Your task to perform on an android device: Open Amazon Image 0: 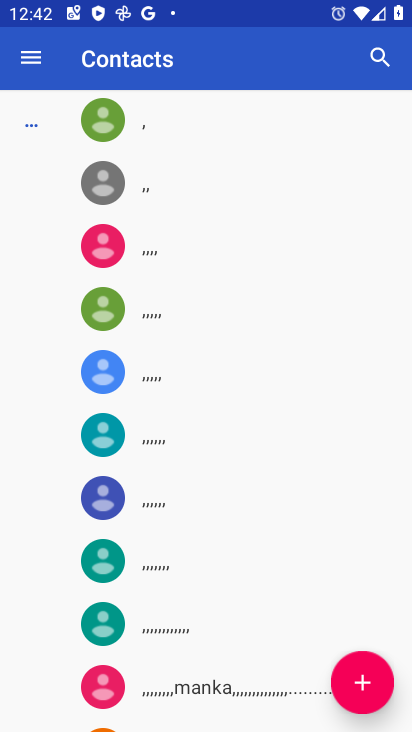
Step 0: press home button
Your task to perform on an android device: Open Amazon Image 1: 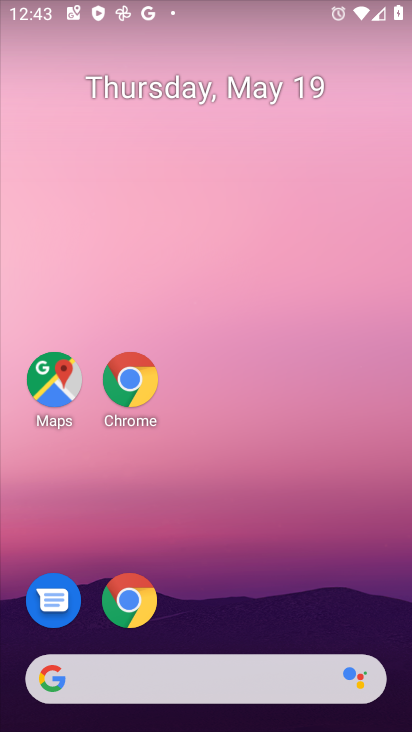
Step 1: drag from (326, 633) to (192, 181)
Your task to perform on an android device: Open Amazon Image 2: 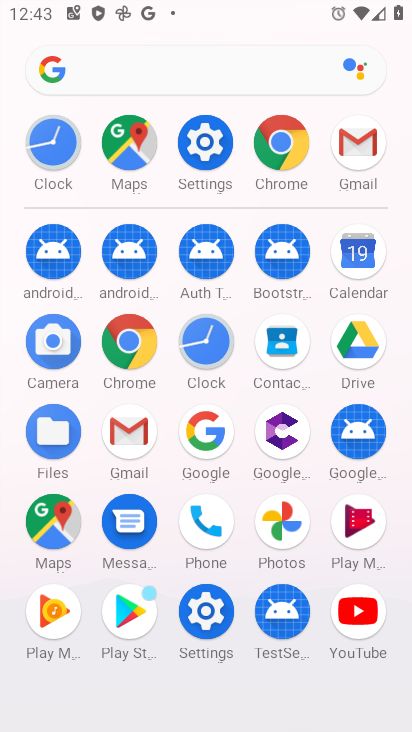
Step 2: click (140, 348)
Your task to perform on an android device: Open Amazon Image 3: 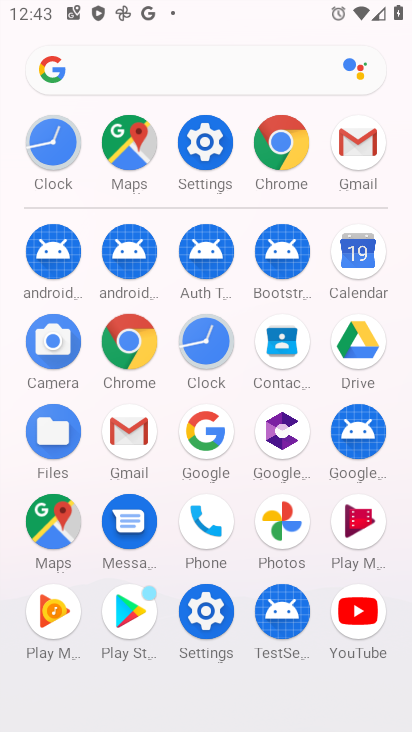
Step 3: click (140, 348)
Your task to perform on an android device: Open Amazon Image 4: 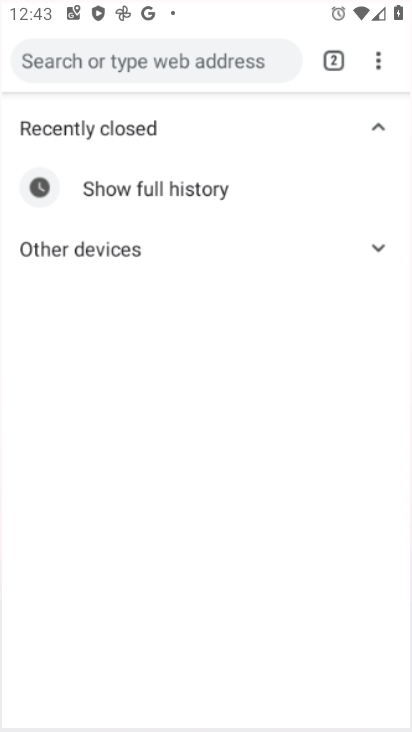
Step 4: click (140, 348)
Your task to perform on an android device: Open Amazon Image 5: 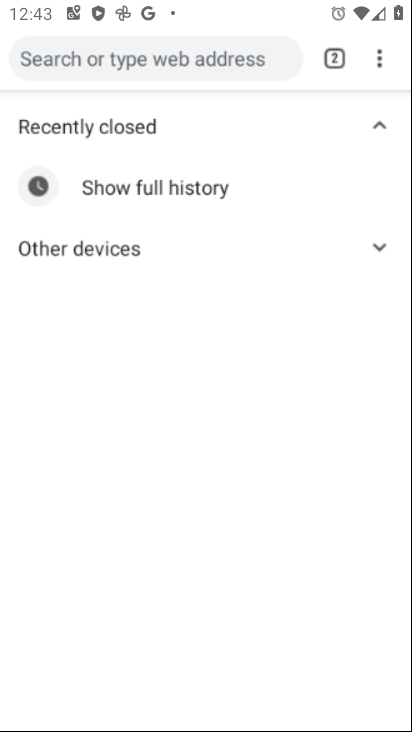
Step 5: click (140, 348)
Your task to perform on an android device: Open Amazon Image 6: 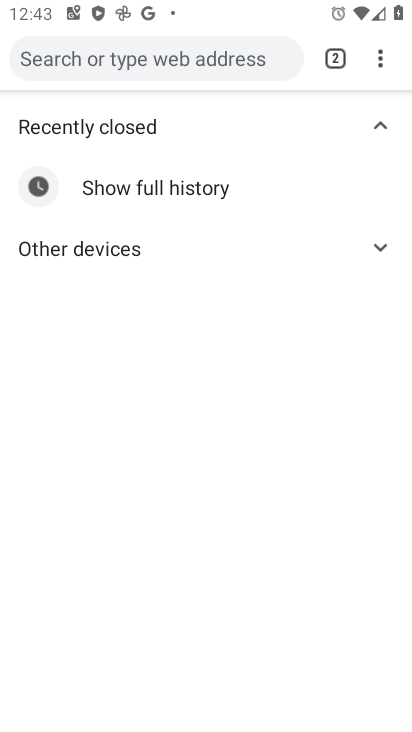
Step 6: press back button
Your task to perform on an android device: Open Amazon Image 7: 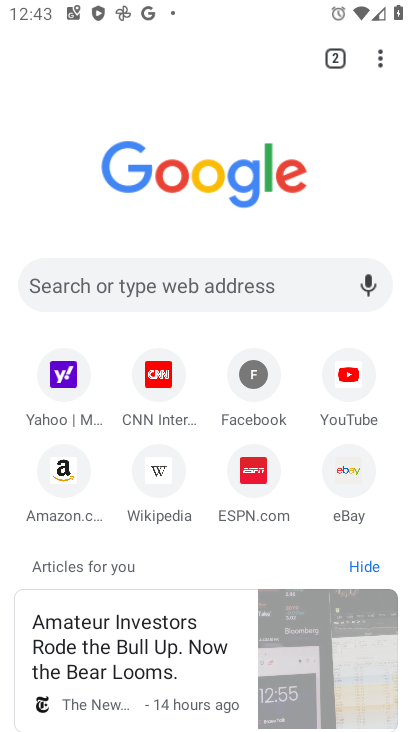
Step 7: drag from (376, 51) to (399, 364)
Your task to perform on an android device: Open Amazon Image 8: 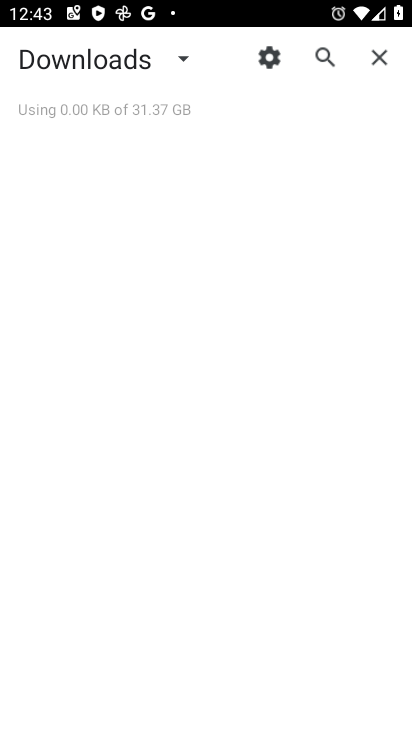
Step 8: click (59, 228)
Your task to perform on an android device: Open Amazon Image 9: 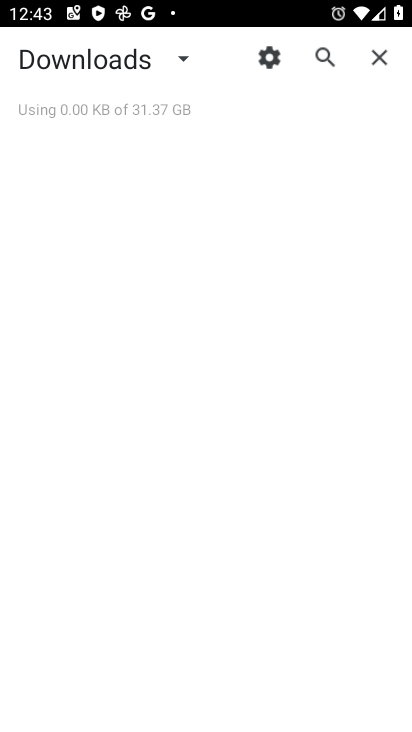
Step 9: click (383, 56)
Your task to perform on an android device: Open Amazon Image 10: 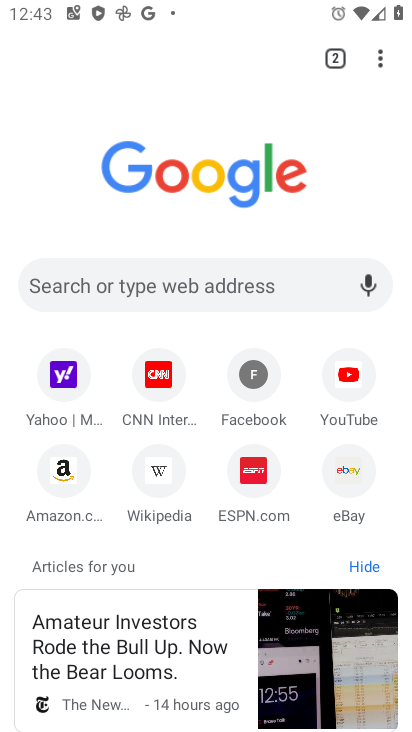
Step 10: click (61, 483)
Your task to perform on an android device: Open Amazon Image 11: 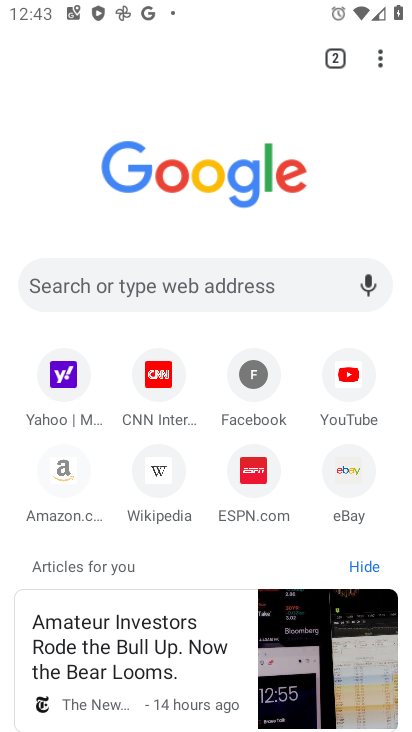
Step 11: click (61, 482)
Your task to perform on an android device: Open Amazon Image 12: 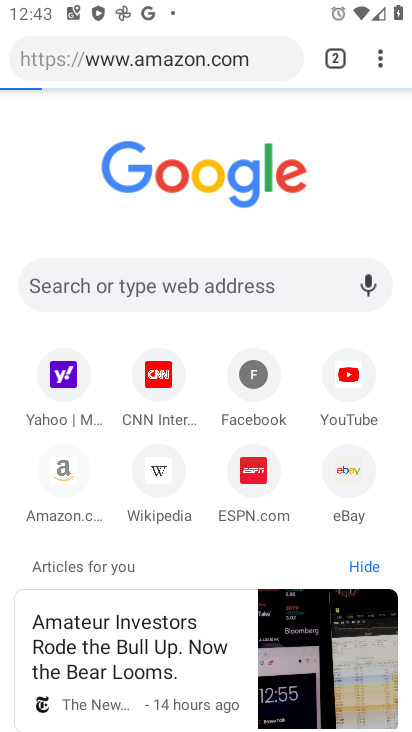
Step 12: click (61, 482)
Your task to perform on an android device: Open Amazon Image 13: 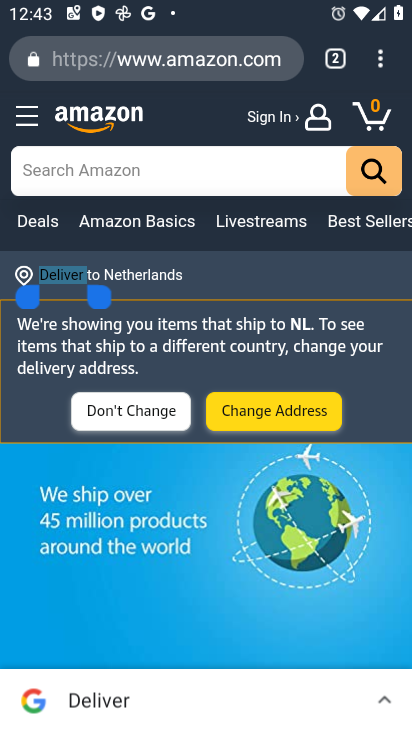
Step 13: click (45, 278)
Your task to perform on an android device: Open Amazon Image 14: 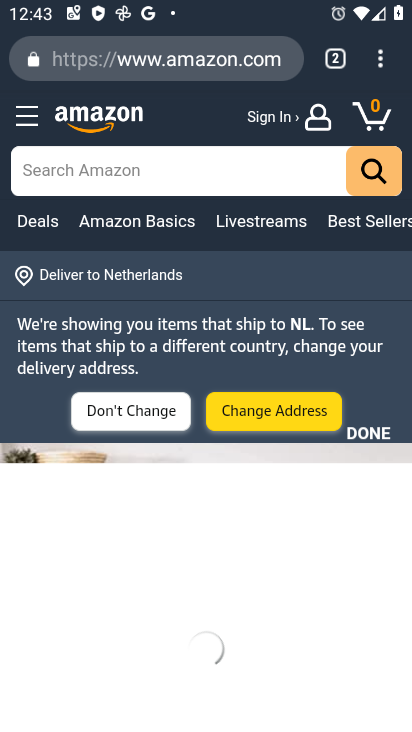
Step 14: click (70, 281)
Your task to perform on an android device: Open Amazon Image 15: 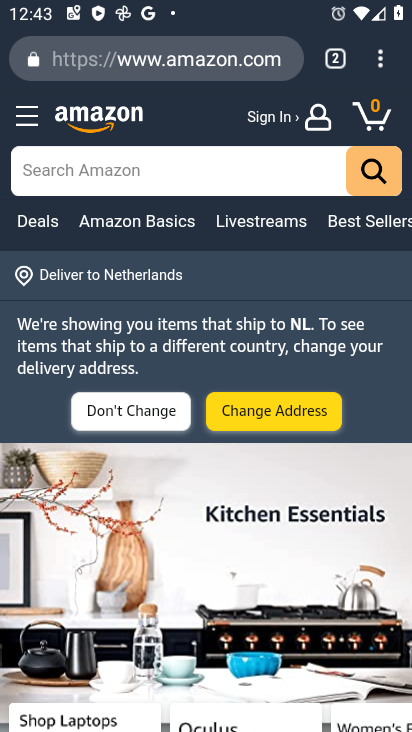
Step 15: task complete